Your task to perform on an android device: Go to Reddit.com Image 0: 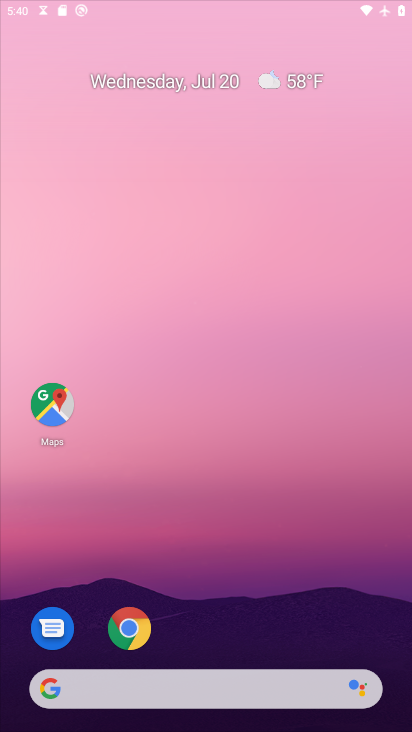
Step 0: press home button
Your task to perform on an android device: Go to Reddit.com Image 1: 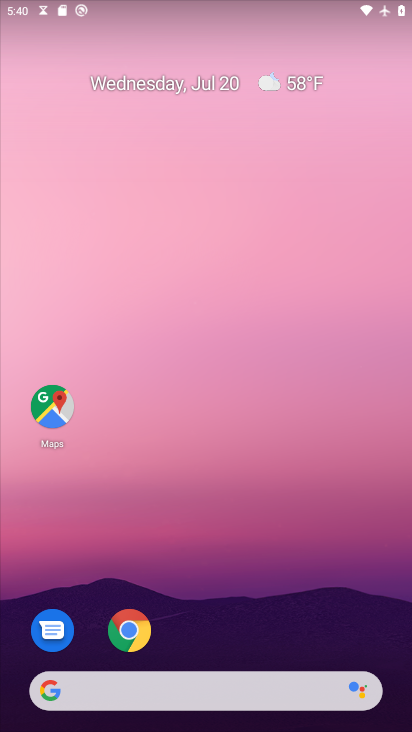
Step 1: click (45, 694)
Your task to perform on an android device: Go to Reddit.com Image 2: 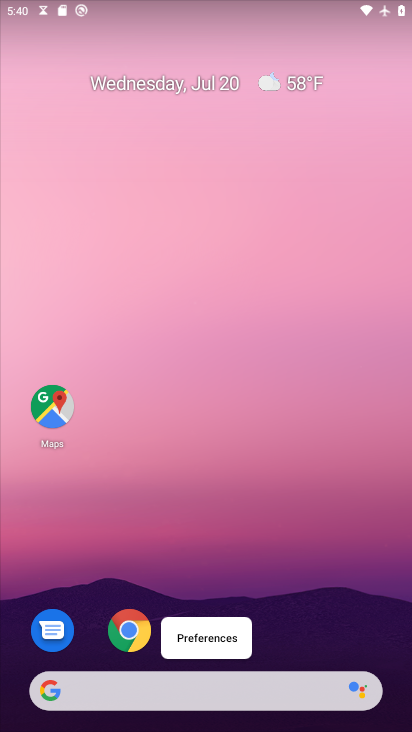
Step 2: click (45, 694)
Your task to perform on an android device: Go to Reddit.com Image 3: 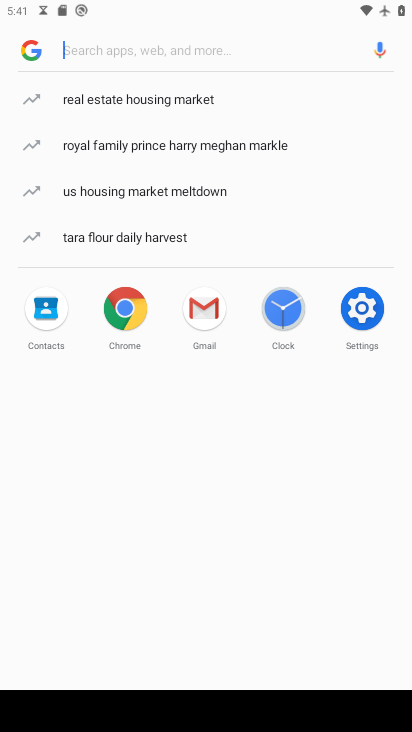
Step 3: type "Reddit.com"
Your task to perform on an android device: Go to Reddit.com Image 4: 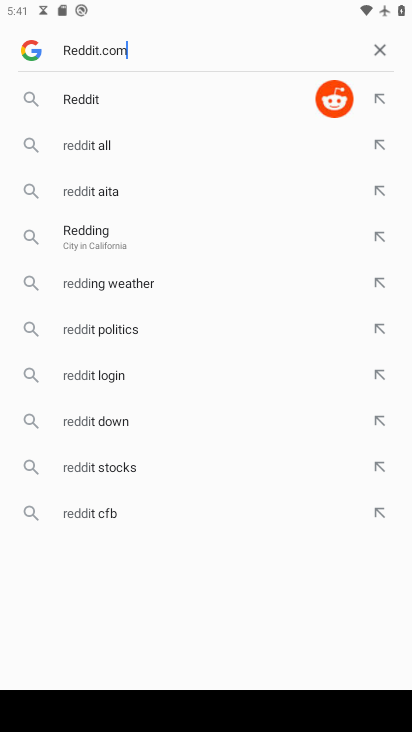
Step 4: press enter
Your task to perform on an android device: Go to Reddit.com Image 5: 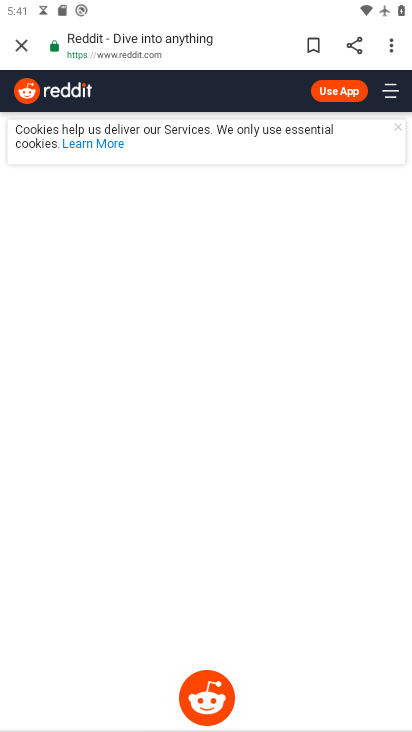
Step 5: task complete